Your task to perform on an android device: Go to settings Image 0: 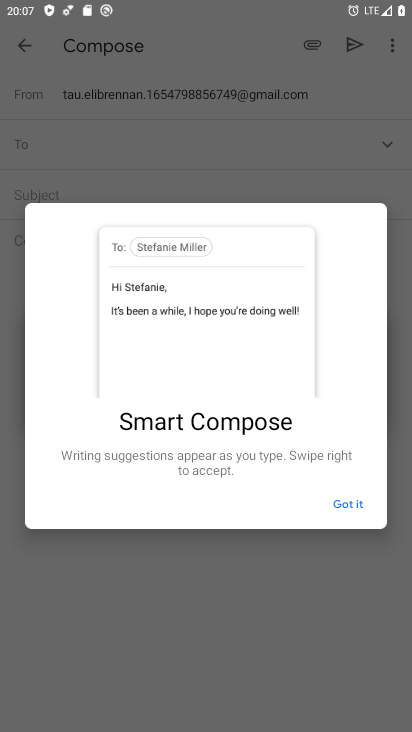
Step 0: press home button
Your task to perform on an android device: Go to settings Image 1: 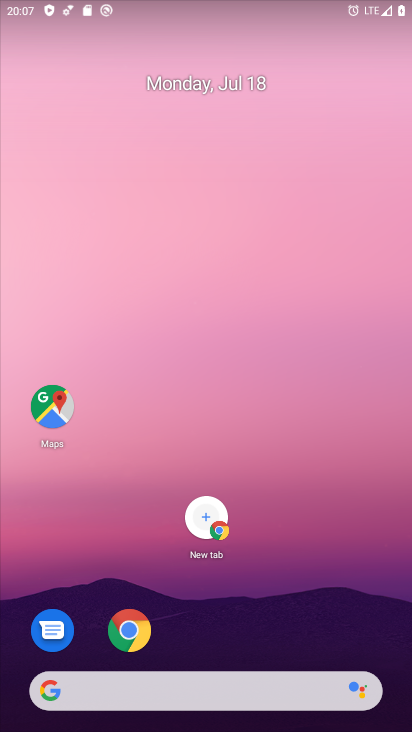
Step 1: drag from (180, 676) to (228, 128)
Your task to perform on an android device: Go to settings Image 2: 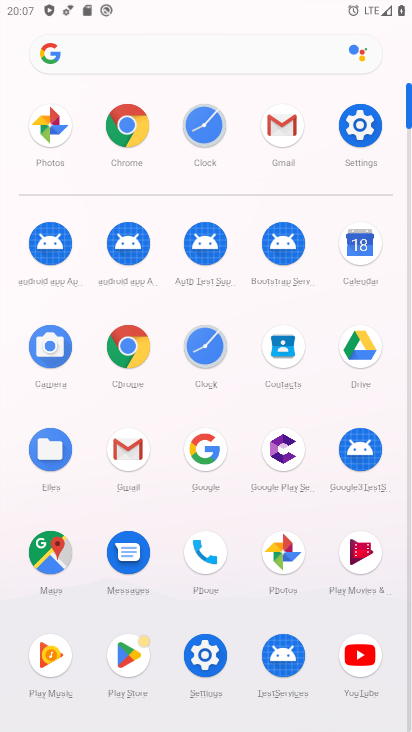
Step 2: click (366, 149)
Your task to perform on an android device: Go to settings Image 3: 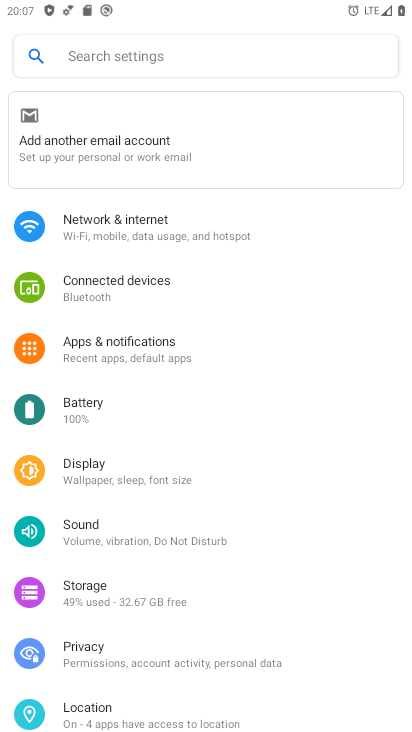
Step 3: task complete